Your task to perform on an android device: turn on data saver in the chrome app Image 0: 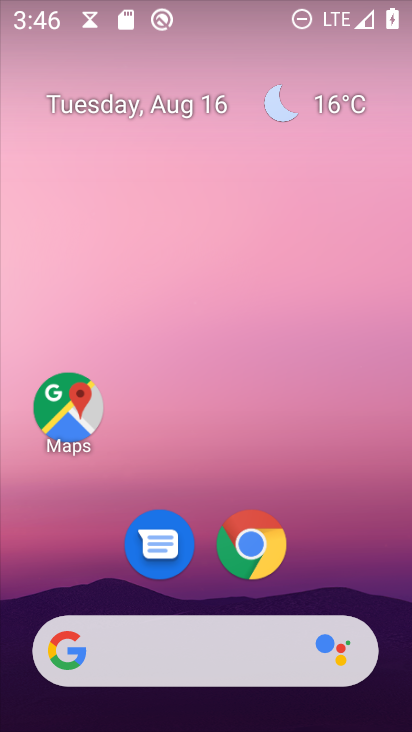
Step 0: click (248, 550)
Your task to perform on an android device: turn on data saver in the chrome app Image 1: 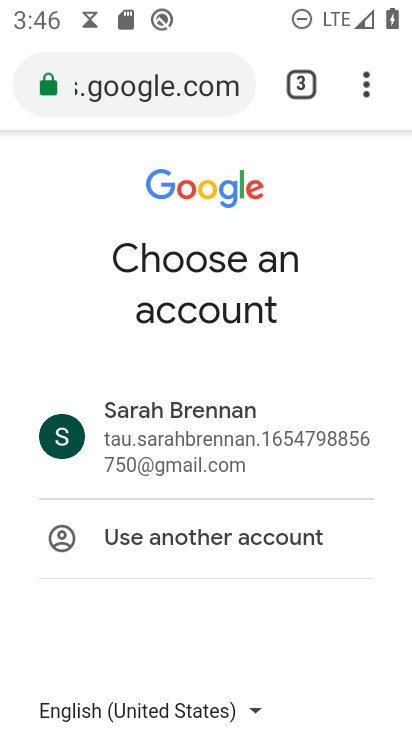
Step 1: click (367, 82)
Your task to perform on an android device: turn on data saver in the chrome app Image 2: 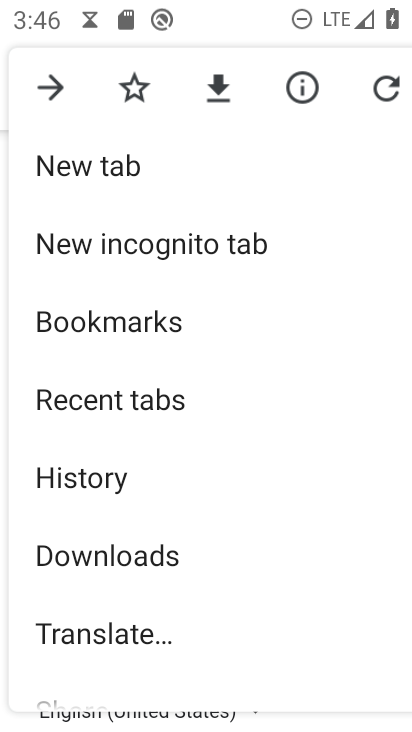
Step 2: drag from (85, 532) to (140, 458)
Your task to perform on an android device: turn on data saver in the chrome app Image 3: 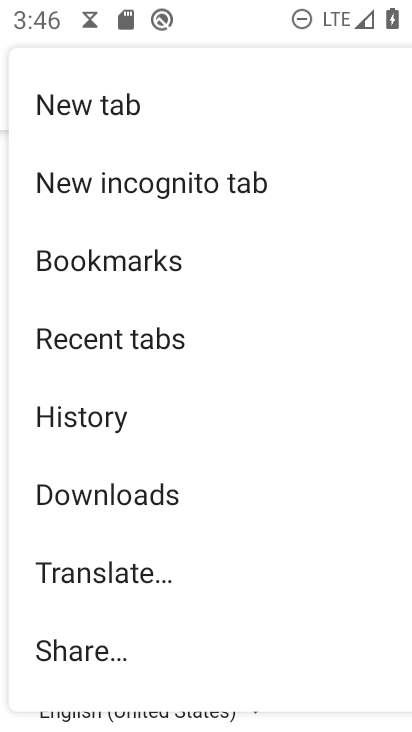
Step 3: drag from (120, 616) to (176, 532)
Your task to perform on an android device: turn on data saver in the chrome app Image 4: 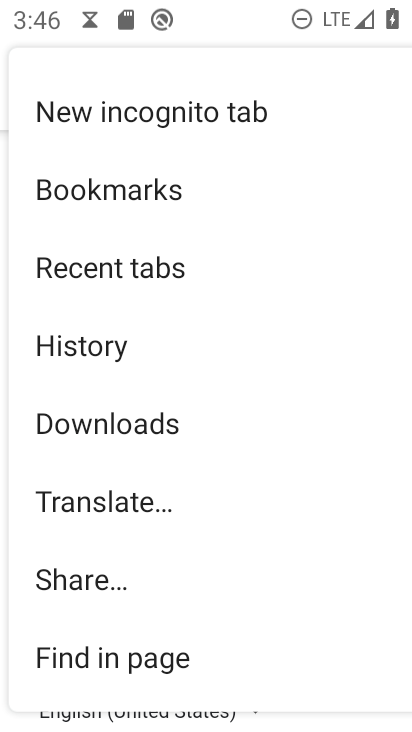
Step 4: drag from (78, 620) to (148, 513)
Your task to perform on an android device: turn on data saver in the chrome app Image 5: 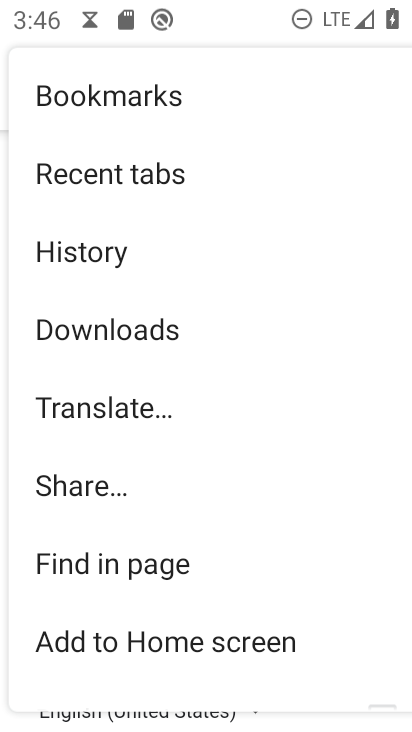
Step 5: drag from (77, 584) to (112, 480)
Your task to perform on an android device: turn on data saver in the chrome app Image 6: 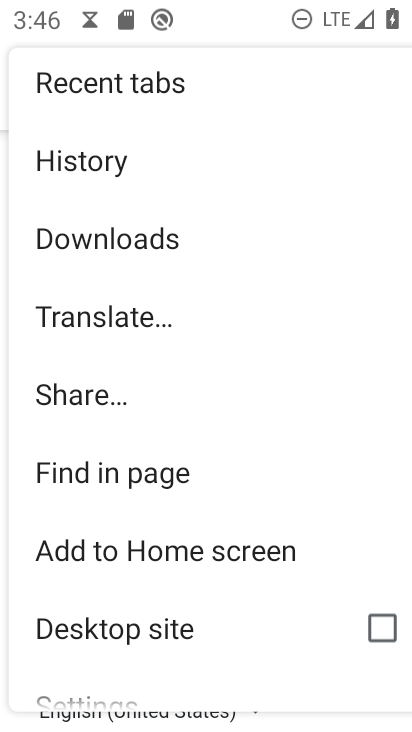
Step 6: drag from (76, 575) to (173, 426)
Your task to perform on an android device: turn on data saver in the chrome app Image 7: 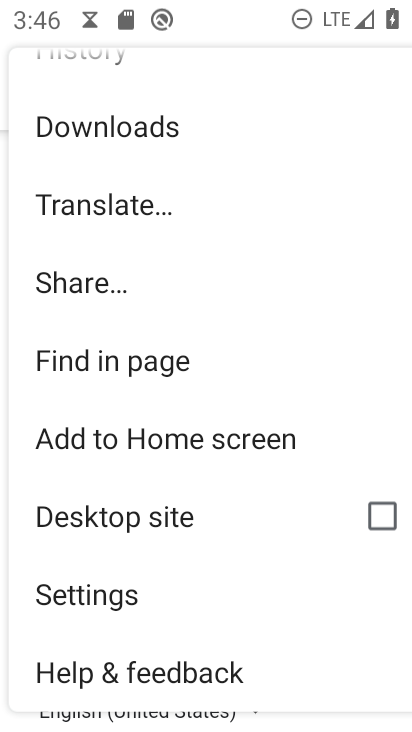
Step 7: drag from (93, 563) to (174, 433)
Your task to perform on an android device: turn on data saver in the chrome app Image 8: 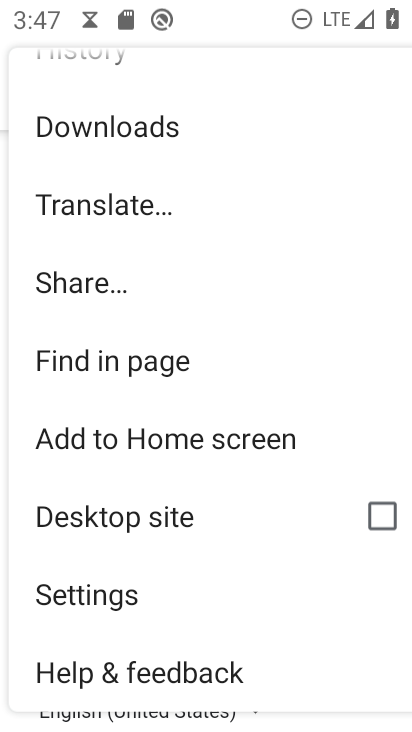
Step 8: click (91, 596)
Your task to perform on an android device: turn on data saver in the chrome app Image 9: 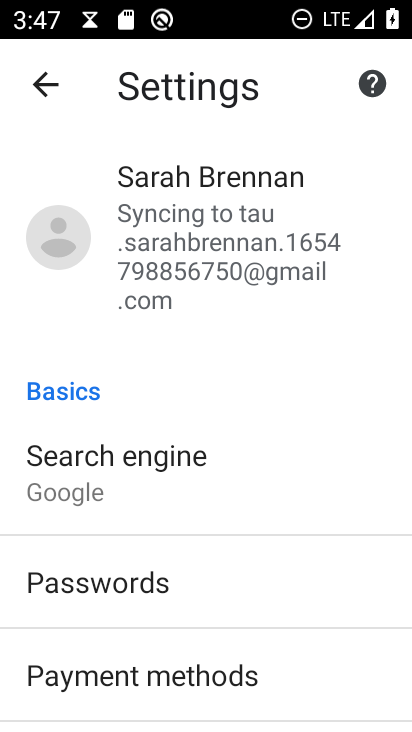
Step 9: drag from (111, 615) to (202, 439)
Your task to perform on an android device: turn on data saver in the chrome app Image 10: 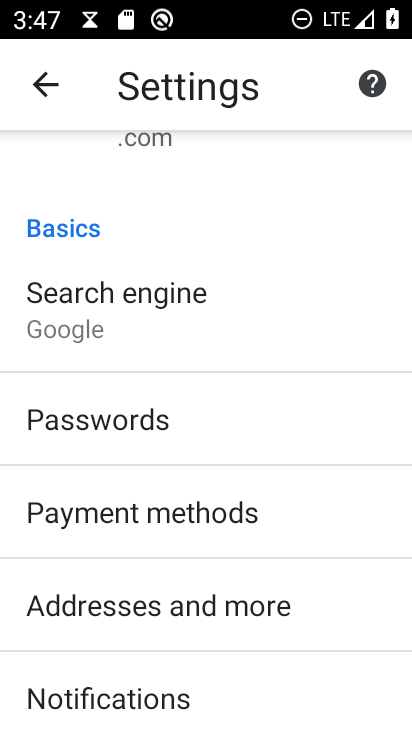
Step 10: drag from (130, 639) to (212, 526)
Your task to perform on an android device: turn on data saver in the chrome app Image 11: 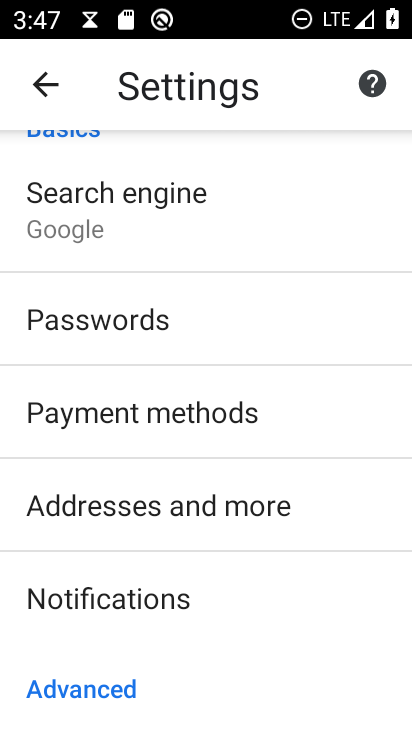
Step 11: drag from (143, 652) to (230, 504)
Your task to perform on an android device: turn on data saver in the chrome app Image 12: 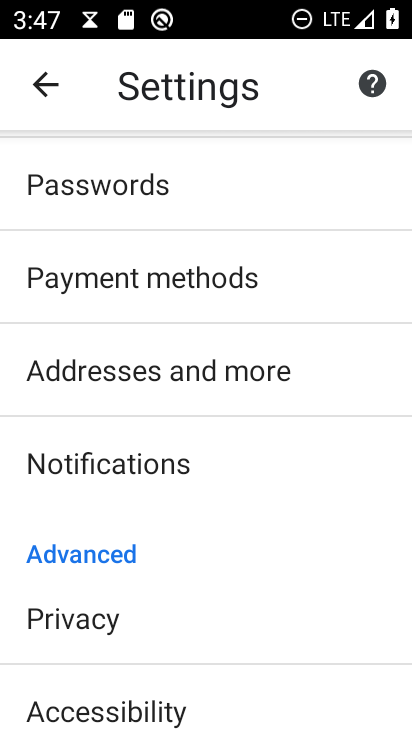
Step 12: drag from (149, 684) to (235, 555)
Your task to perform on an android device: turn on data saver in the chrome app Image 13: 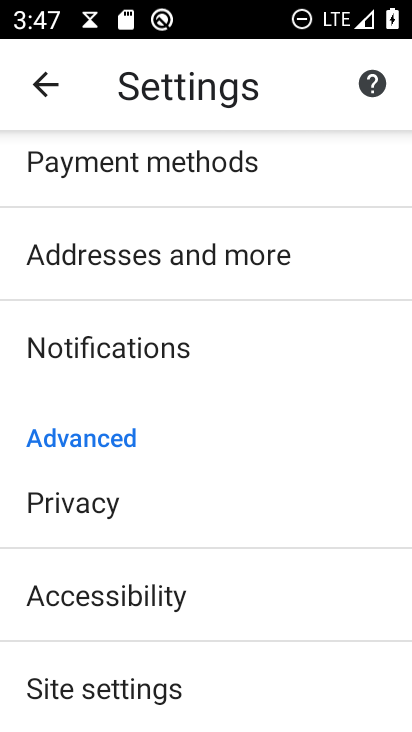
Step 13: drag from (141, 660) to (241, 504)
Your task to perform on an android device: turn on data saver in the chrome app Image 14: 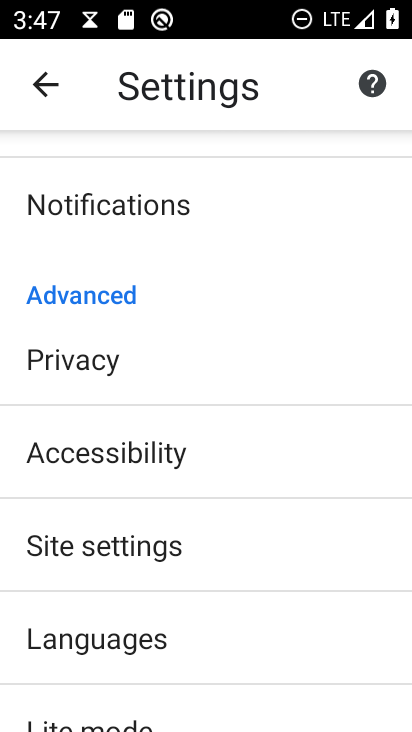
Step 14: drag from (159, 640) to (254, 506)
Your task to perform on an android device: turn on data saver in the chrome app Image 15: 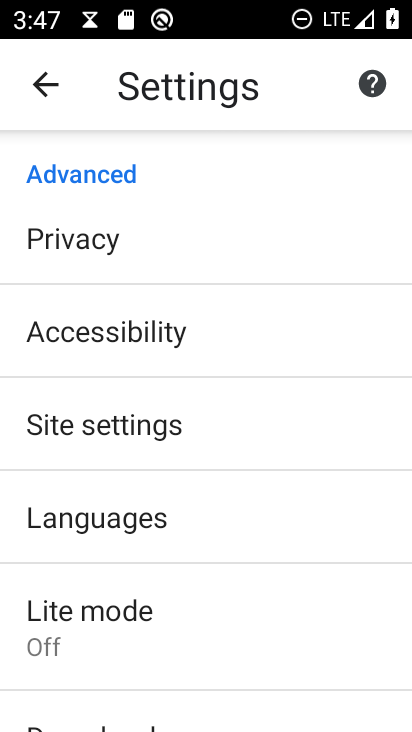
Step 15: click (113, 601)
Your task to perform on an android device: turn on data saver in the chrome app Image 16: 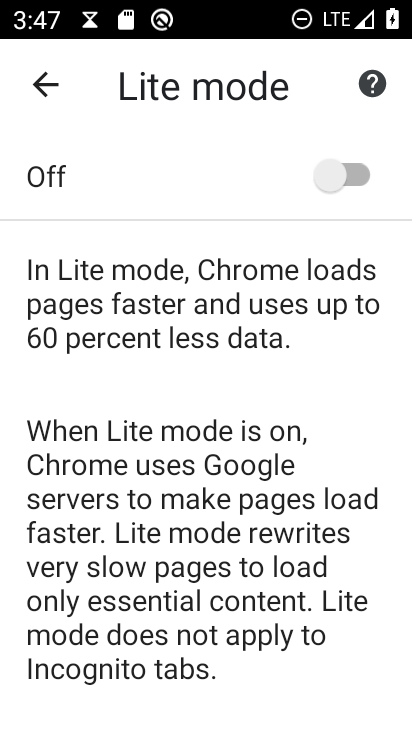
Step 16: click (355, 165)
Your task to perform on an android device: turn on data saver in the chrome app Image 17: 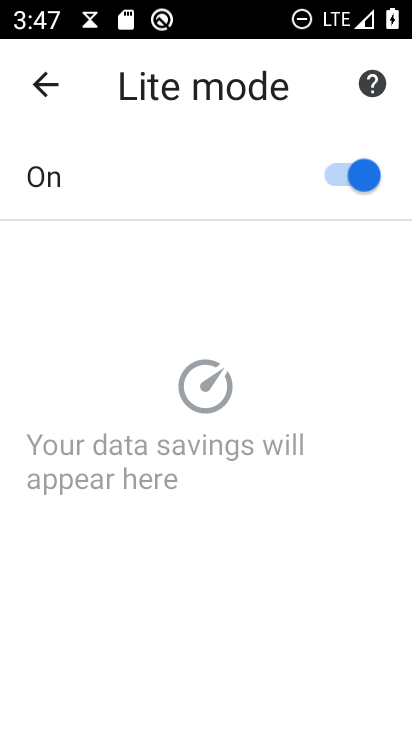
Step 17: task complete